Your task to perform on an android device: delete the emails in spam in the gmail app Image 0: 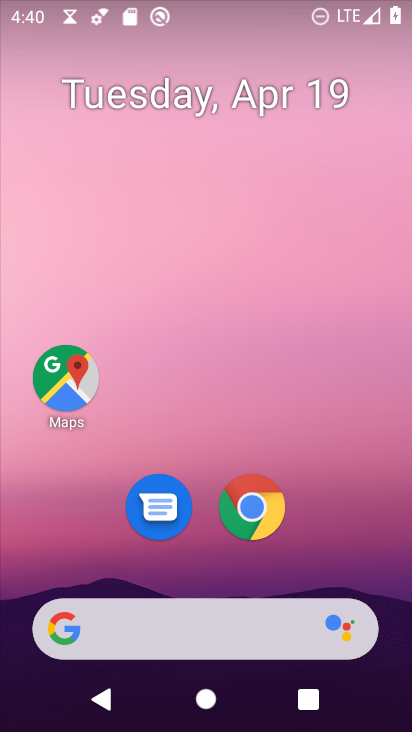
Step 0: drag from (323, 556) to (214, 87)
Your task to perform on an android device: delete the emails in spam in the gmail app Image 1: 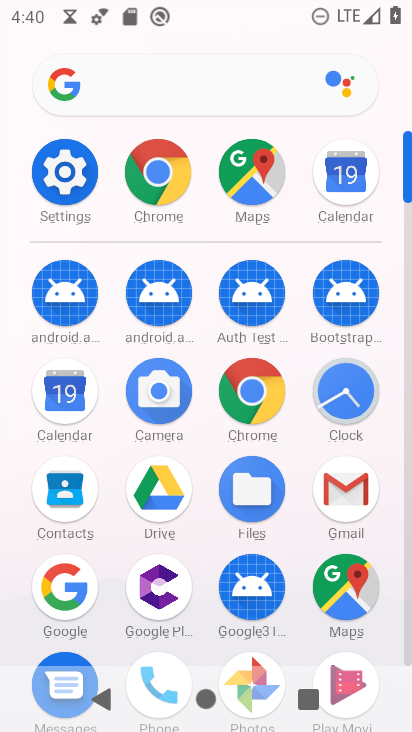
Step 1: click (347, 480)
Your task to perform on an android device: delete the emails in spam in the gmail app Image 2: 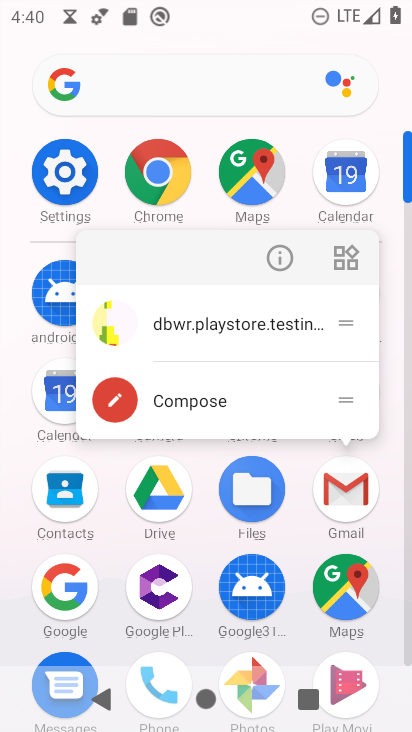
Step 2: click (347, 480)
Your task to perform on an android device: delete the emails in spam in the gmail app Image 3: 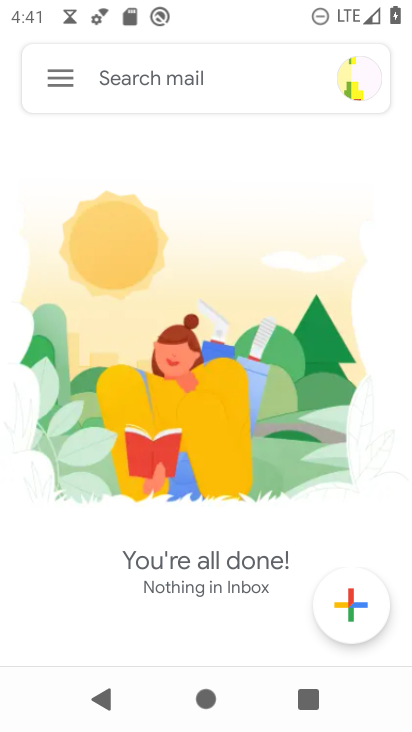
Step 3: click (55, 70)
Your task to perform on an android device: delete the emails in spam in the gmail app Image 4: 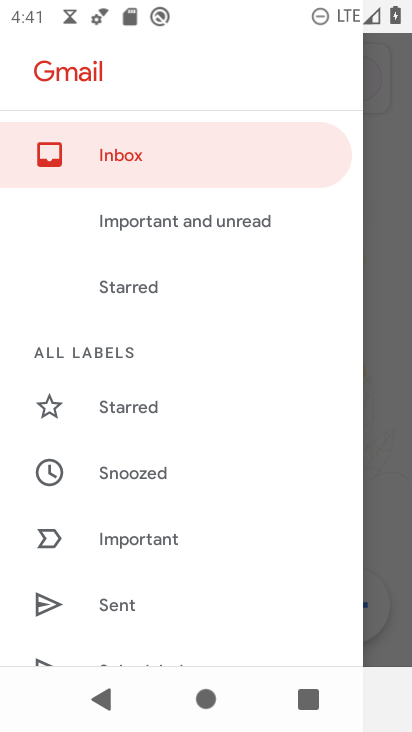
Step 4: drag from (249, 491) to (201, 332)
Your task to perform on an android device: delete the emails in spam in the gmail app Image 5: 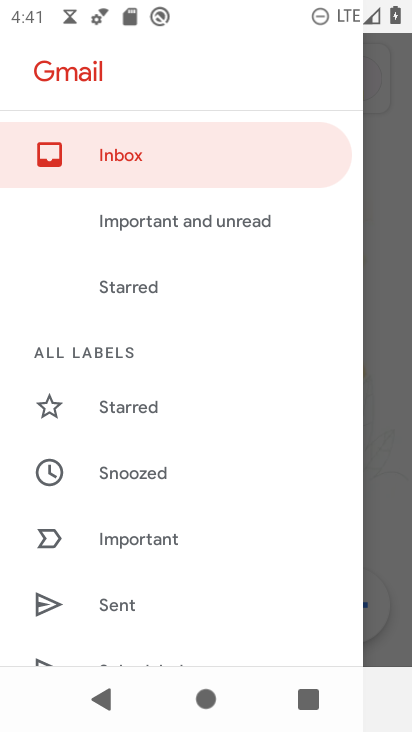
Step 5: drag from (208, 472) to (177, 361)
Your task to perform on an android device: delete the emails in spam in the gmail app Image 6: 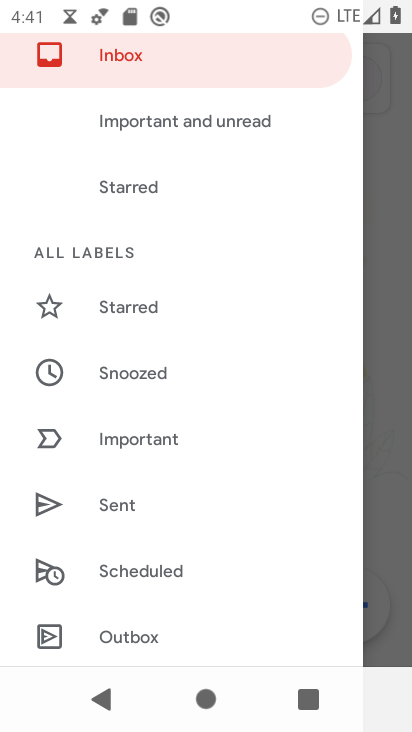
Step 6: drag from (191, 514) to (149, 391)
Your task to perform on an android device: delete the emails in spam in the gmail app Image 7: 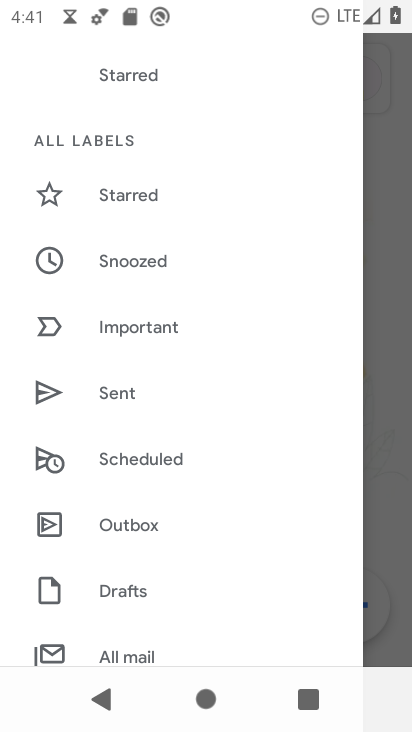
Step 7: drag from (166, 525) to (130, 387)
Your task to perform on an android device: delete the emails in spam in the gmail app Image 8: 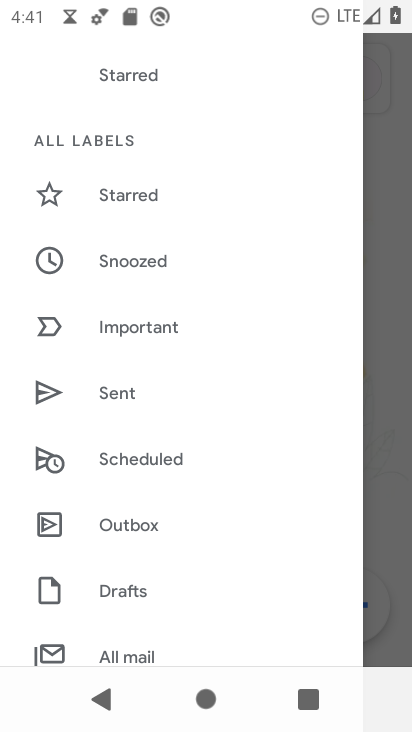
Step 8: drag from (189, 465) to (215, 268)
Your task to perform on an android device: delete the emails in spam in the gmail app Image 9: 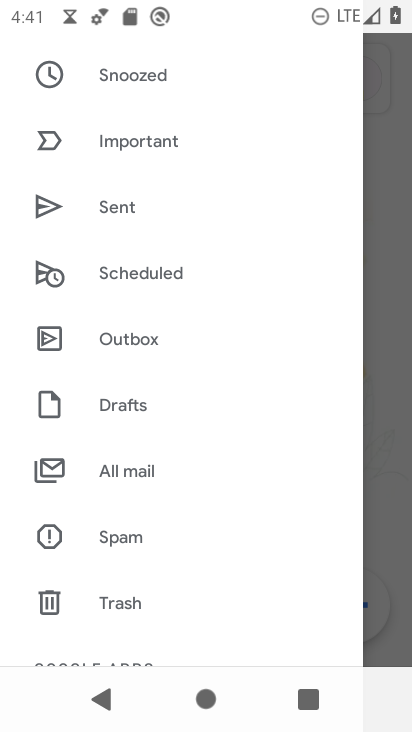
Step 9: click (110, 525)
Your task to perform on an android device: delete the emails in spam in the gmail app Image 10: 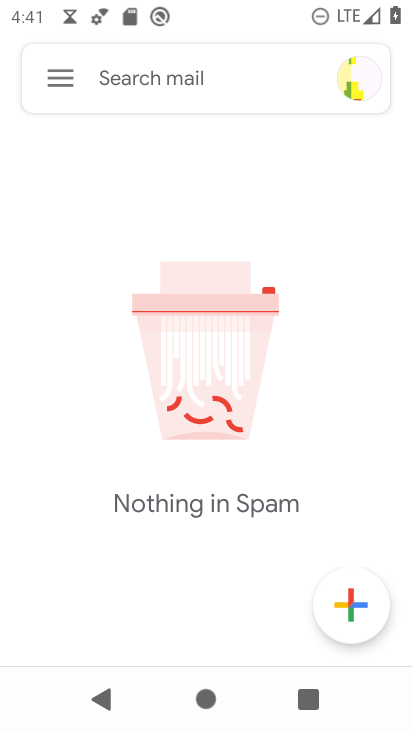
Step 10: task complete